Your task to perform on an android device: change the clock style Image 0: 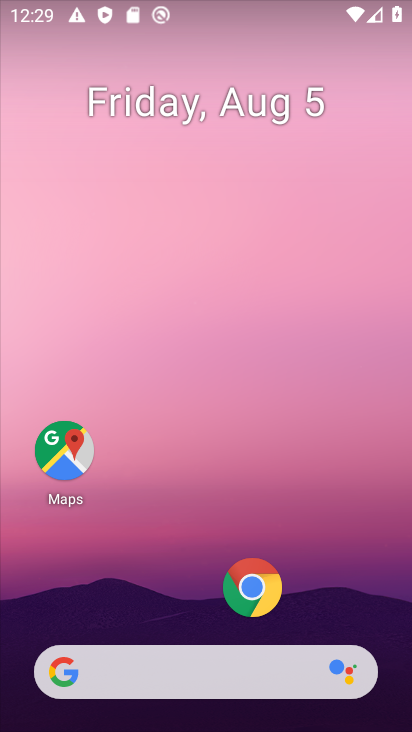
Step 0: drag from (211, 609) to (277, 245)
Your task to perform on an android device: change the clock style Image 1: 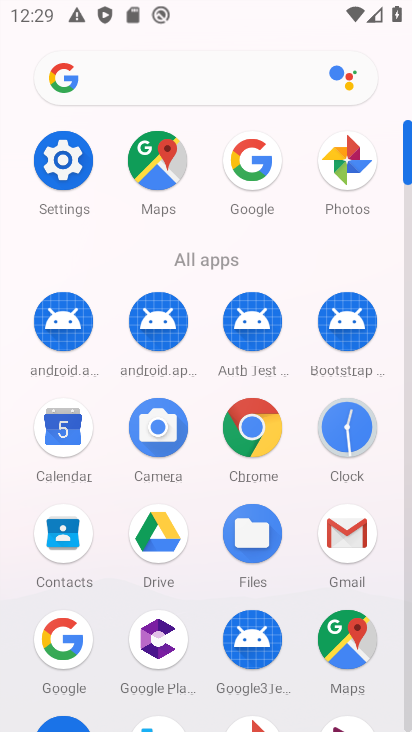
Step 1: click (334, 432)
Your task to perform on an android device: change the clock style Image 2: 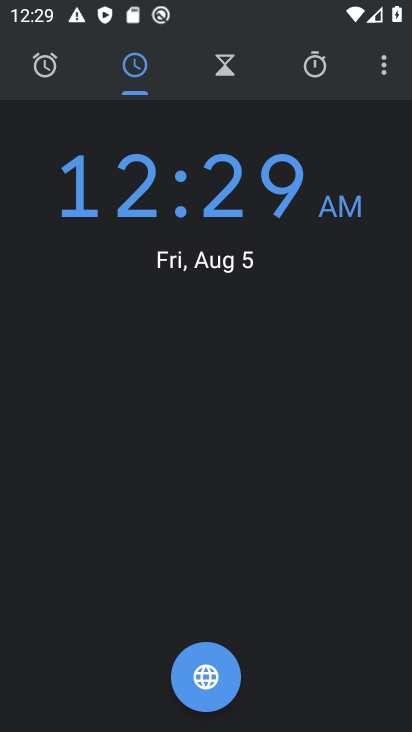
Step 2: click (376, 66)
Your task to perform on an android device: change the clock style Image 3: 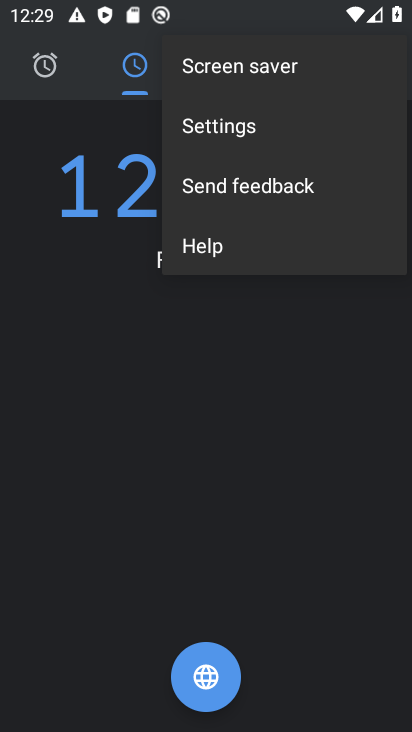
Step 3: click (257, 134)
Your task to perform on an android device: change the clock style Image 4: 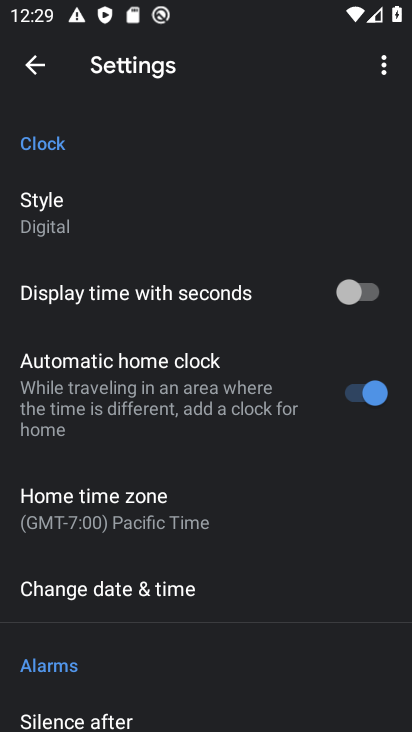
Step 4: click (69, 215)
Your task to perform on an android device: change the clock style Image 5: 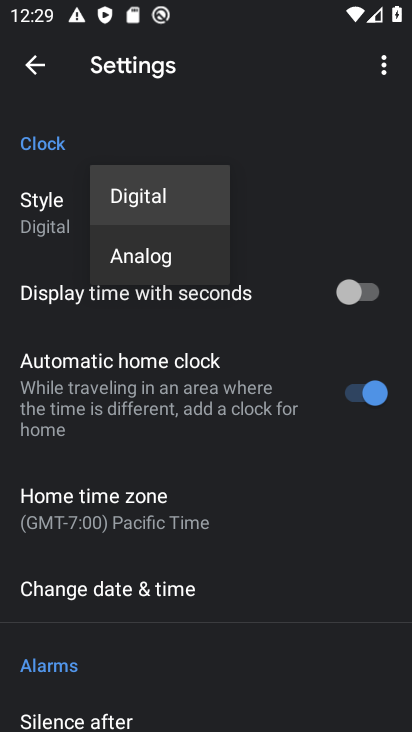
Step 5: click (136, 266)
Your task to perform on an android device: change the clock style Image 6: 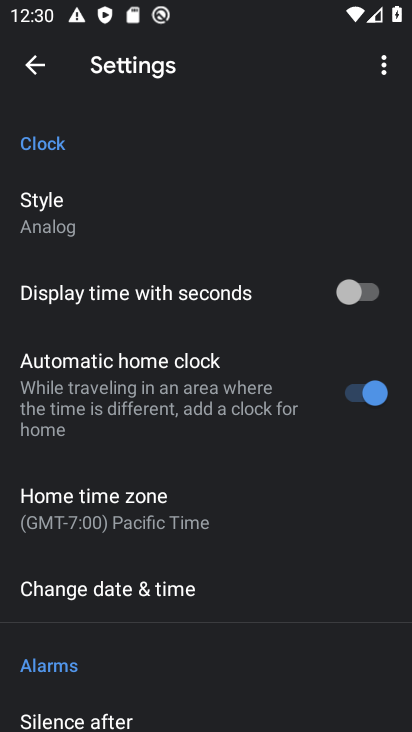
Step 6: task complete